Your task to perform on an android device: set the stopwatch Image 0: 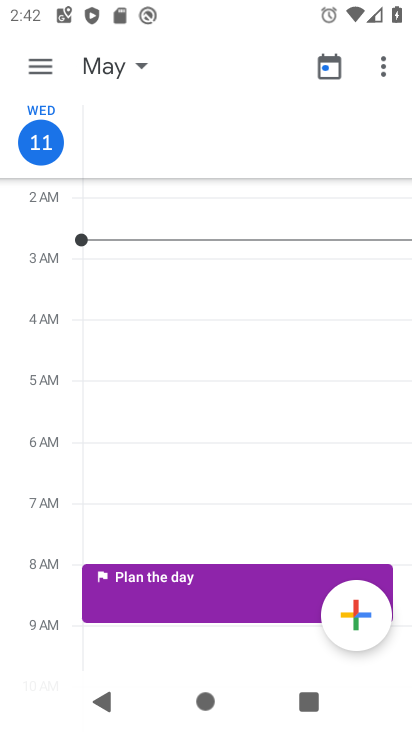
Step 0: press home button
Your task to perform on an android device: set the stopwatch Image 1: 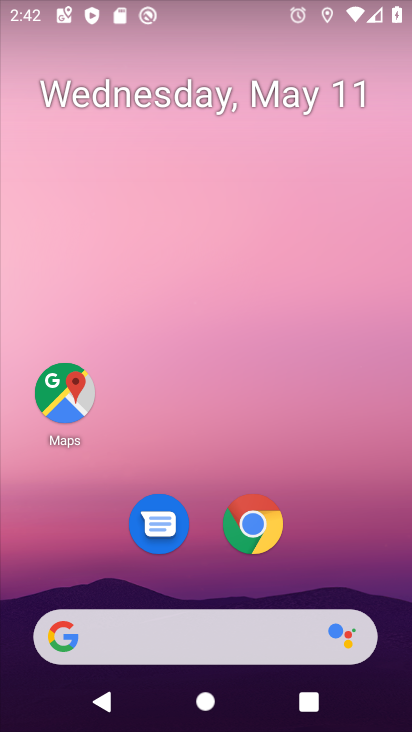
Step 1: drag from (297, 518) to (378, 89)
Your task to perform on an android device: set the stopwatch Image 2: 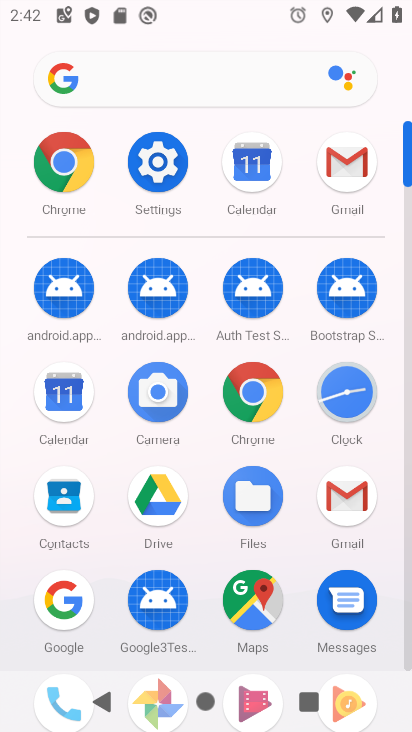
Step 2: click (333, 383)
Your task to perform on an android device: set the stopwatch Image 3: 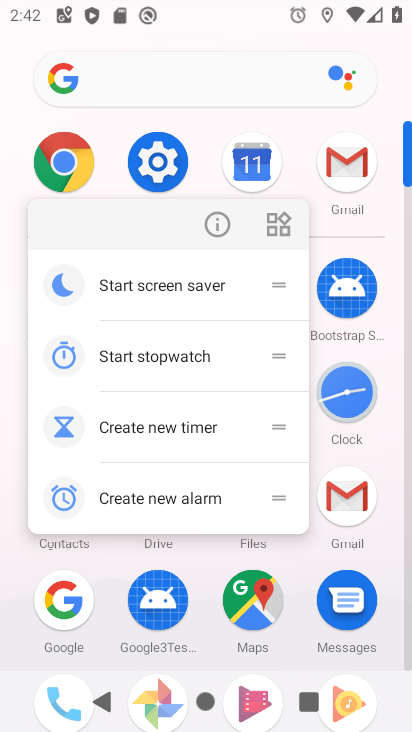
Step 3: click (343, 385)
Your task to perform on an android device: set the stopwatch Image 4: 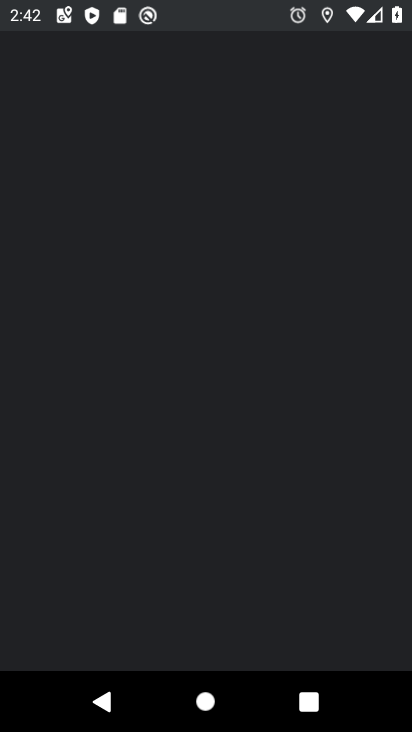
Step 4: click (343, 385)
Your task to perform on an android device: set the stopwatch Image 5: 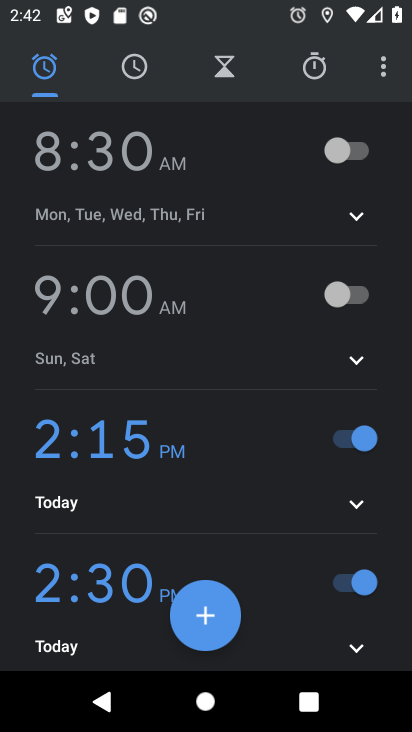
Step 5: click (377, 67)
Your task to perform on an android device: set the stopwatch Image 6: 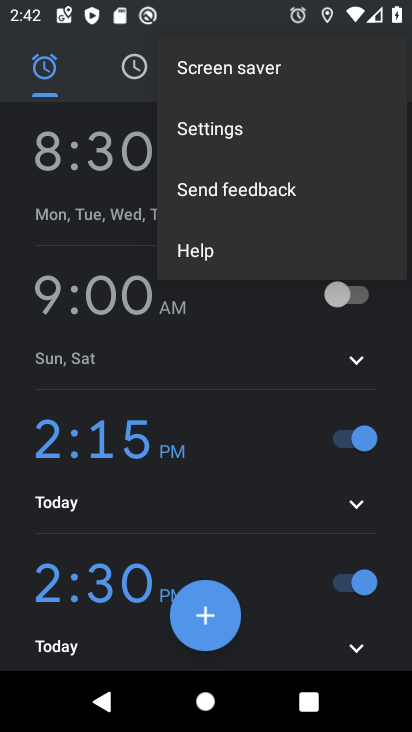
Step 6: click (304, 133)
Your task to perform on an android device: set the stopwatch Image 7: 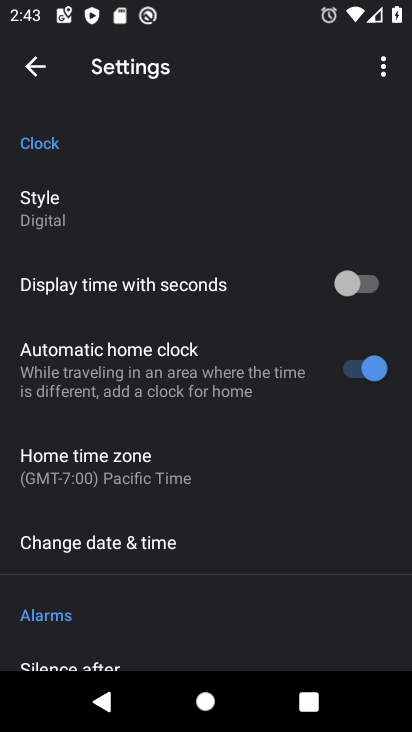
Step 7: task complete